Your task to perform on an android device: change the clock display to show seconds Image 0: 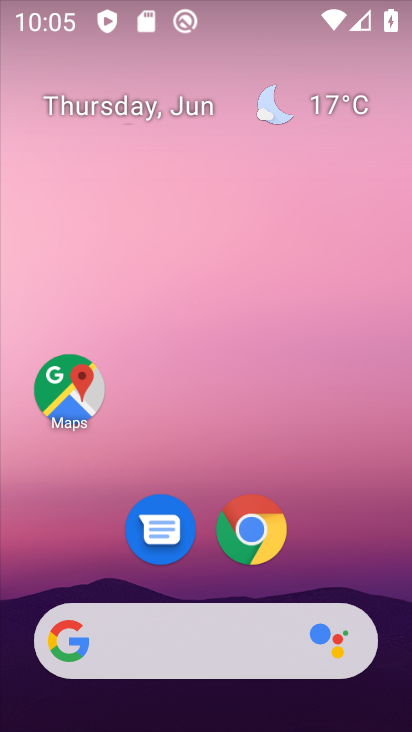
Step 0: drag from (345, 530) to (400, 37)
Your task to perform on an android device: change the clock display to show seconds Image 1: 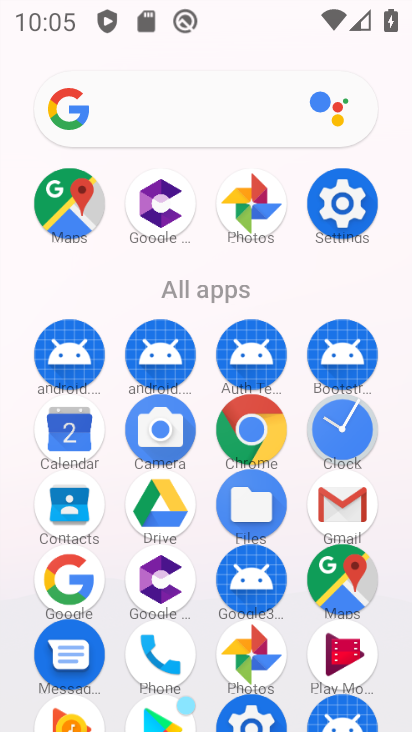
Step 1: click (325, 437)
Your task to perform on an android device: change the clock display to show seconds Image 2: 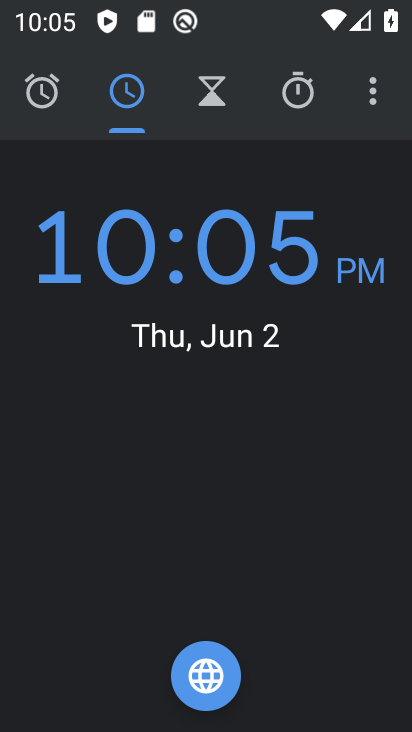
Step 2: click (374, 99)
Your task to perform on an android device: change the clock display to show seconds Image 3: 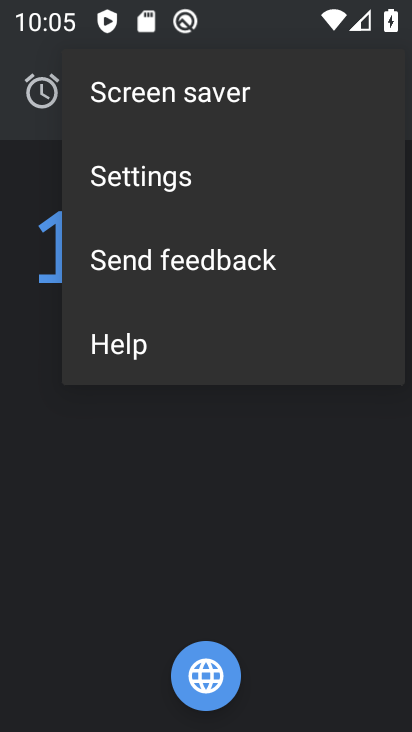
Step 3: click (197, 174)
Your task to perform on an android device: change the clock display to show seconds Image 4: 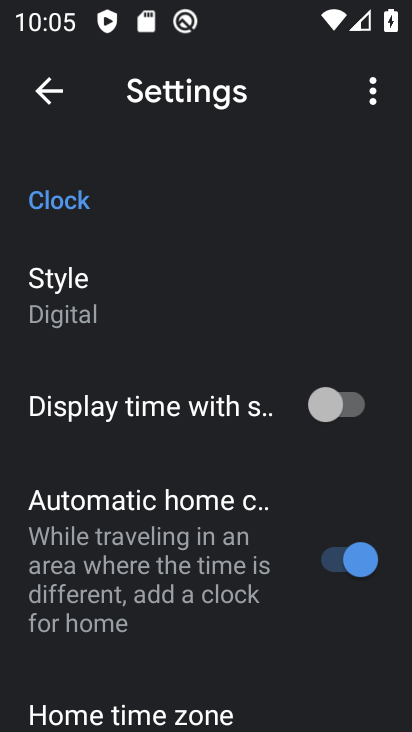
Step 4: click (353, 395)
Your task to perform on an android device: change the clock display to show seconds Image 5: 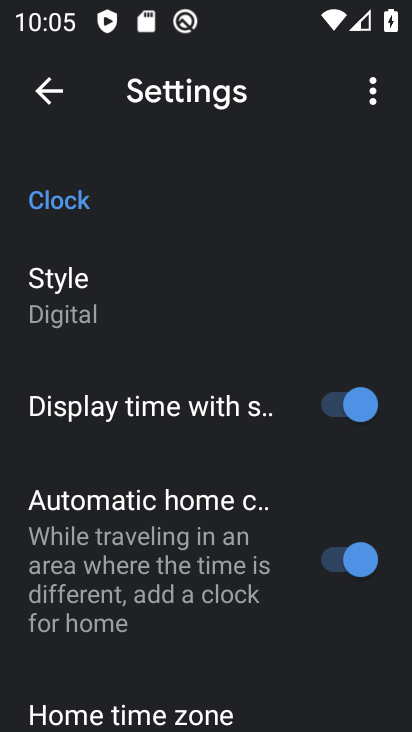
Step 5: task complete